Your task to perform on an android device: turn pop-ups off in chrome Image 0: 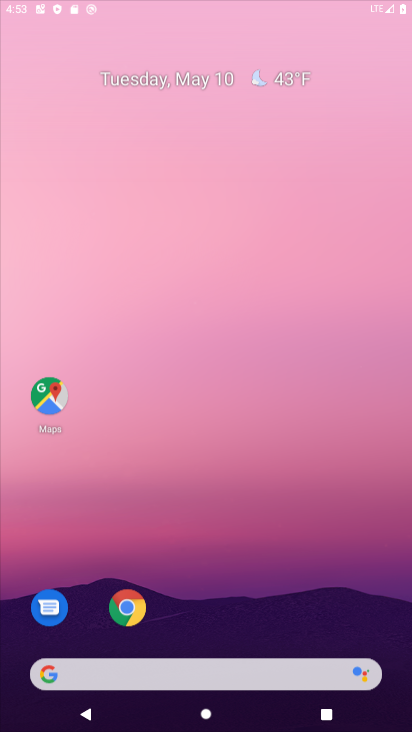
Step 0: drag from (230, 580) to (312, 142)
Your task to perform on an android device: turn pop-ups off in chrome Image 1: 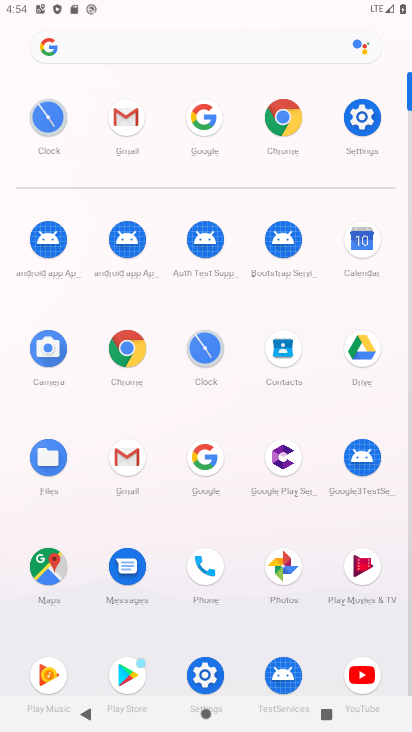
Step 1: click (285, 115)
Your task to perform on an android device: turn pop-ups off in chrome Image 2: 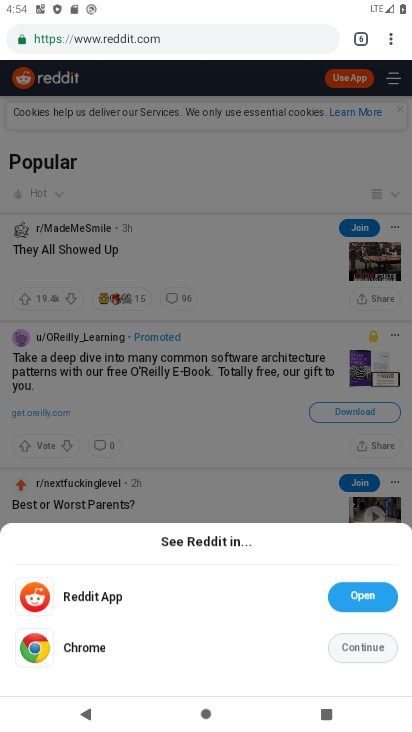
Step 2: drag from (388, 36) to (245, 470)
Your task to perform on an android device: turn pop-ups off in chrome Image 3: 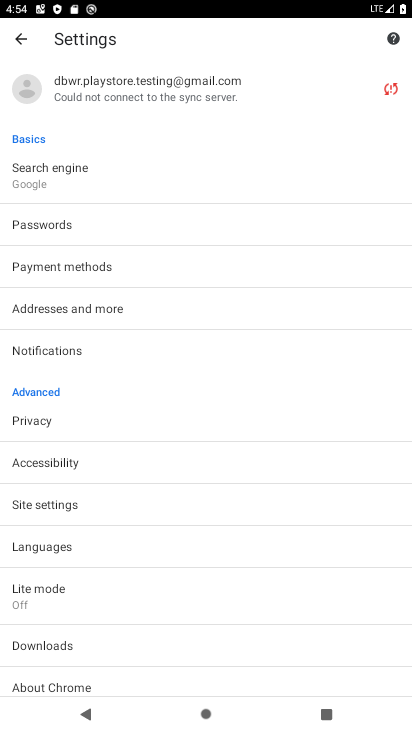
Step 3: click (52, 497)
Your task to perform on an android device: turn pop-ups off in chrome Image 4: 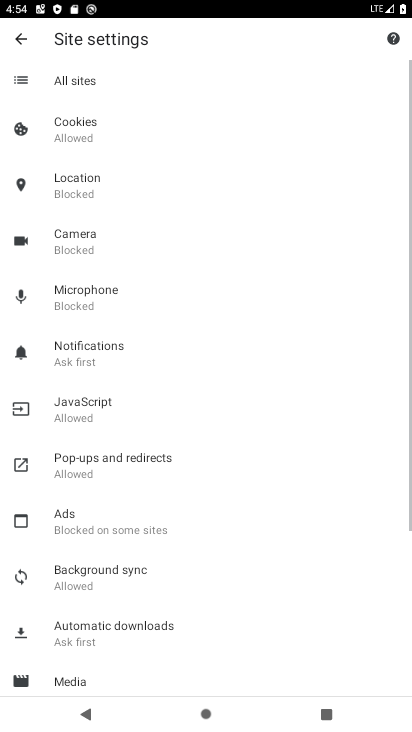
Step 4: click (111, 461)
Your task to perform on an android device: turn pop-ups off in chrome Image 5: 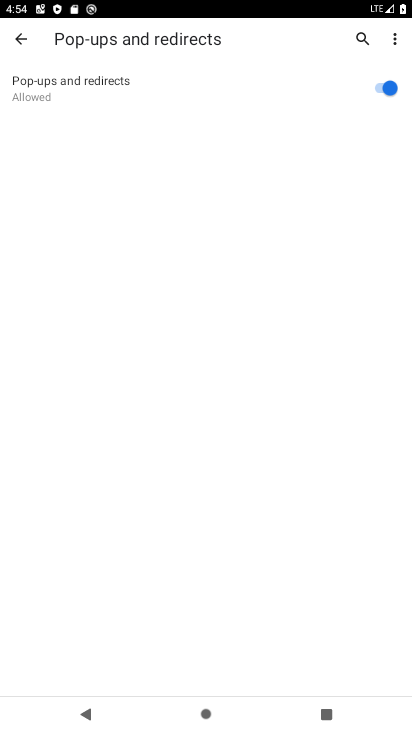
Step 5: click (384, 85)
Your task to perform on an android device: turn pop-ups off in chrome Image 6: 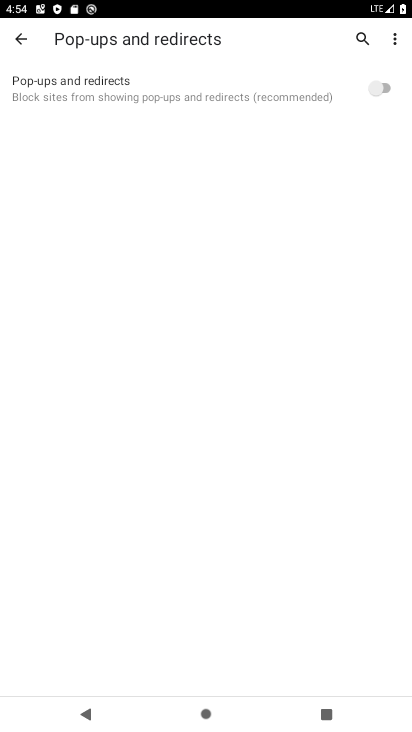
Step 6: task complete